Your task to perform on an android device: delete browsing data in the chrome app Image 0: 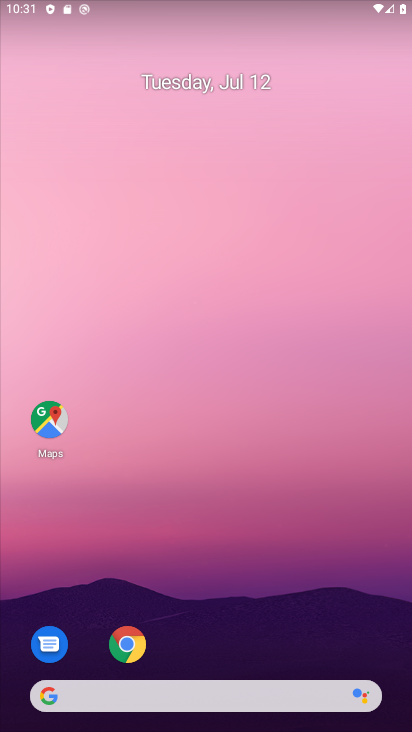
Step 0: click (137, 653)
Your task to perform on an android device: delete browsing data in the chrome app Image 1: 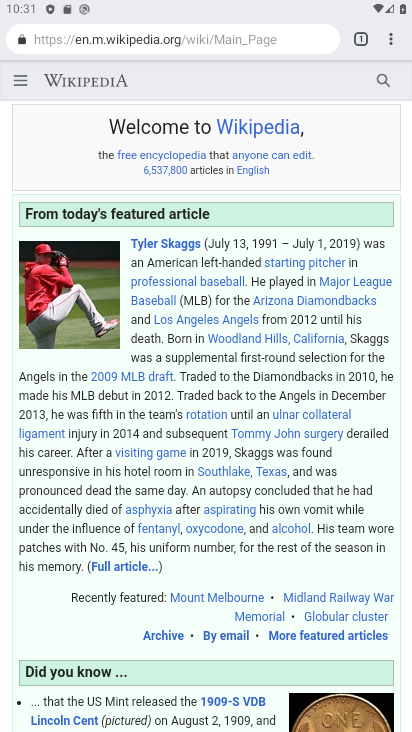
Step 1: click (391, 37)
Your task to perform on an android device: delete browsing data in the chrome app Image 2: 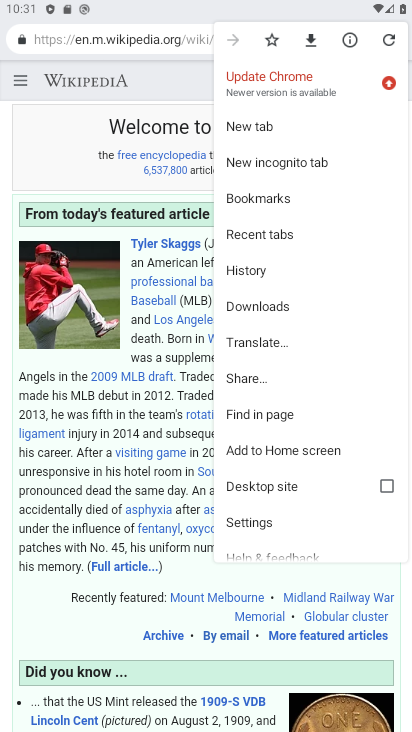
Step 2: click (255, 525)
Your task to perform on an android device: delete browsing data in the chrome app Image 3: 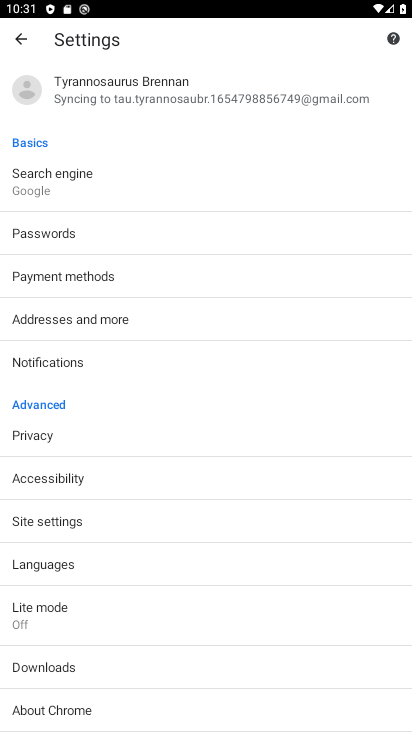
Step 3: drag from (57, 705) to (62, 327)
Your task to perform on an android device: delete browsing data in the chrome app Image 4: 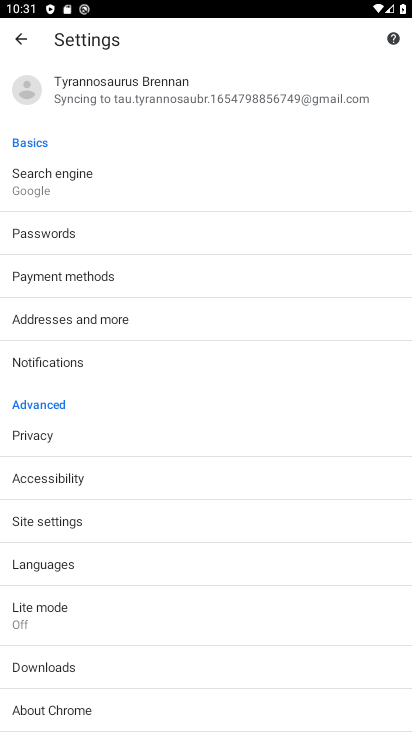
Step 4: click (45, 427)
Your task to perform on an android device: delete browsing data in the chrome app Image 5: 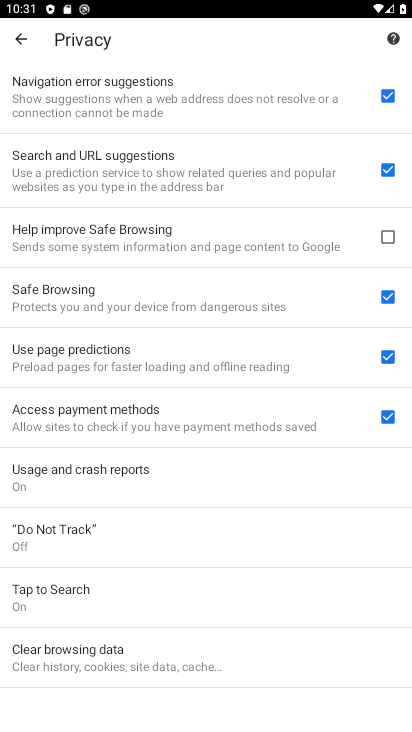
Step 5: click (98, 663)
Your task to perform on an android device: delete browsing data in the chrome app Image 6: 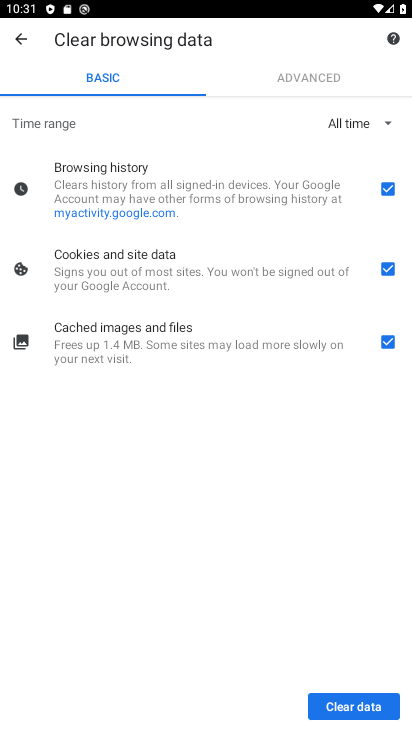
Step 6: click (327, 701)
Your task to perform on an android device: delete browsing data in the chrome app Image 7: 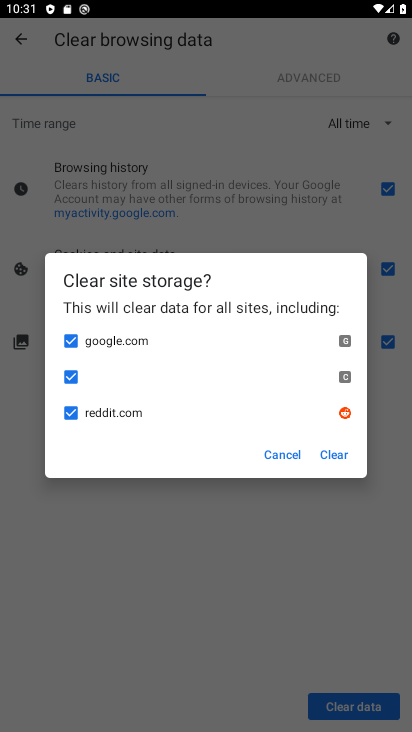
Step 7: click (336, 457)
Your task to perform on an android device: delete browsing data in the chrome app Image 8: 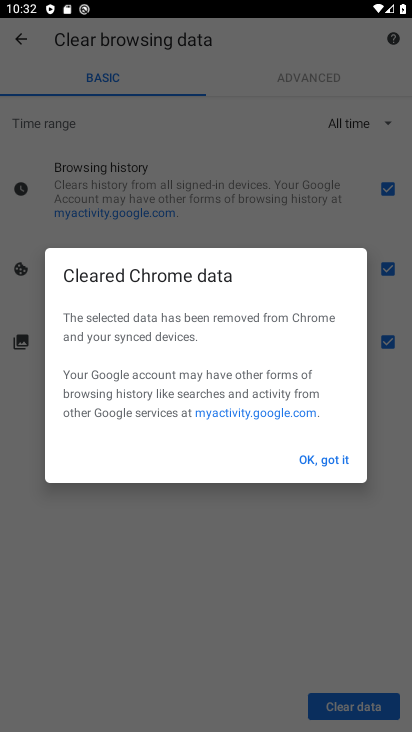
Step 8: click (319, 458)
Your task to perform on an android device: delete browsing data in the chrome app Image 9: 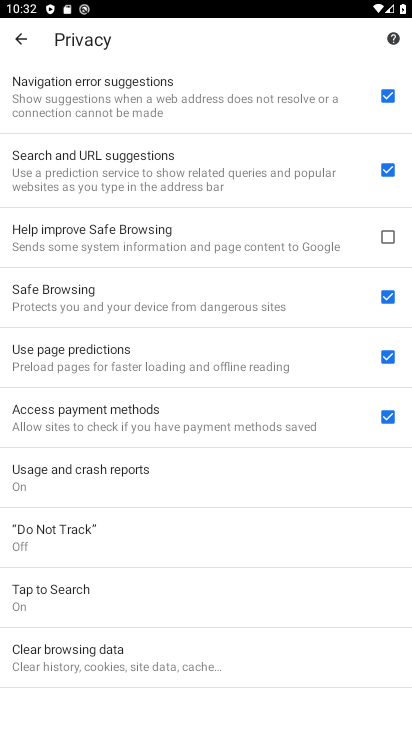
Step 9: task complete